Your task to perform on an android device: Check the weather Image 0: 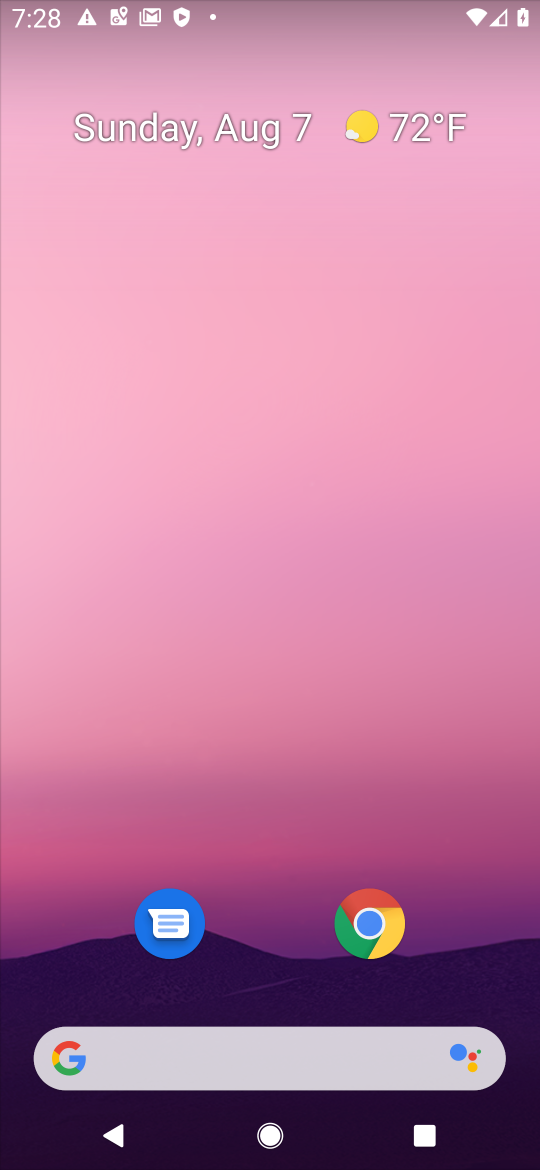
Step 0: drag from (468, 966) to (235, 44)
Your task to perform on an android device: Check the weather Image 1: 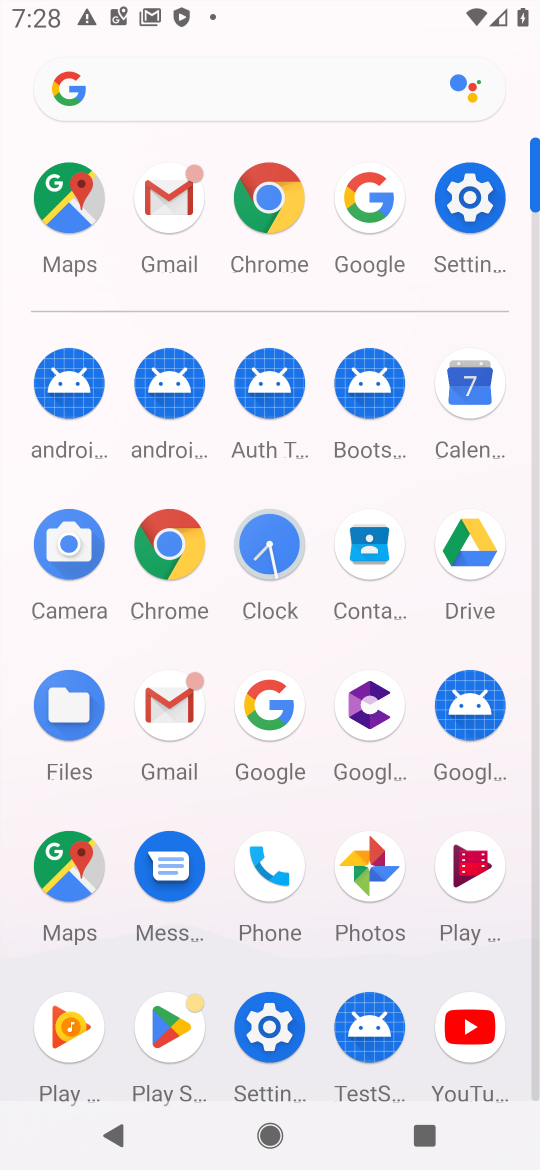
Step 1: click (257, 720)
Your task to perform on an android device: Check the weather Image 2: 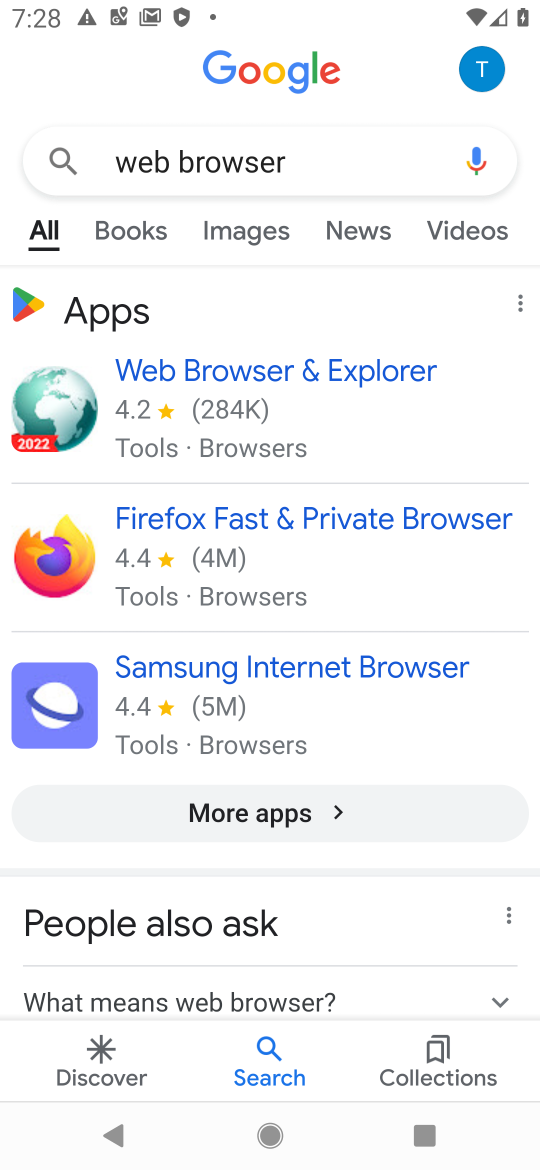
Step 2: press back button
Your task to perform on an android device: Check the weather Image 3: 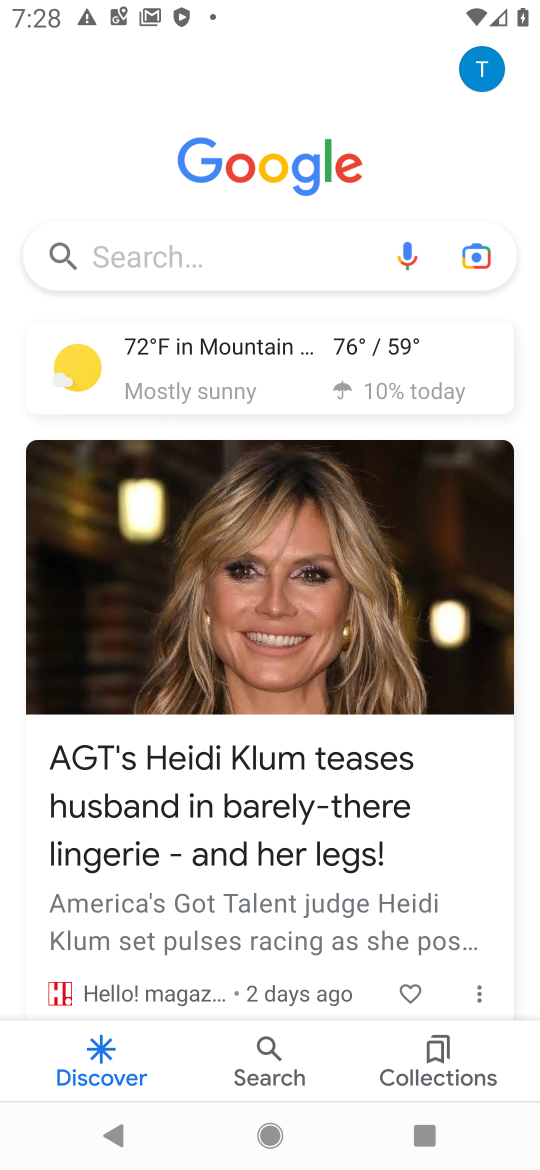
Step 3: click (141, 250)
Your task to perform on an android device: Check the weather Image 4: 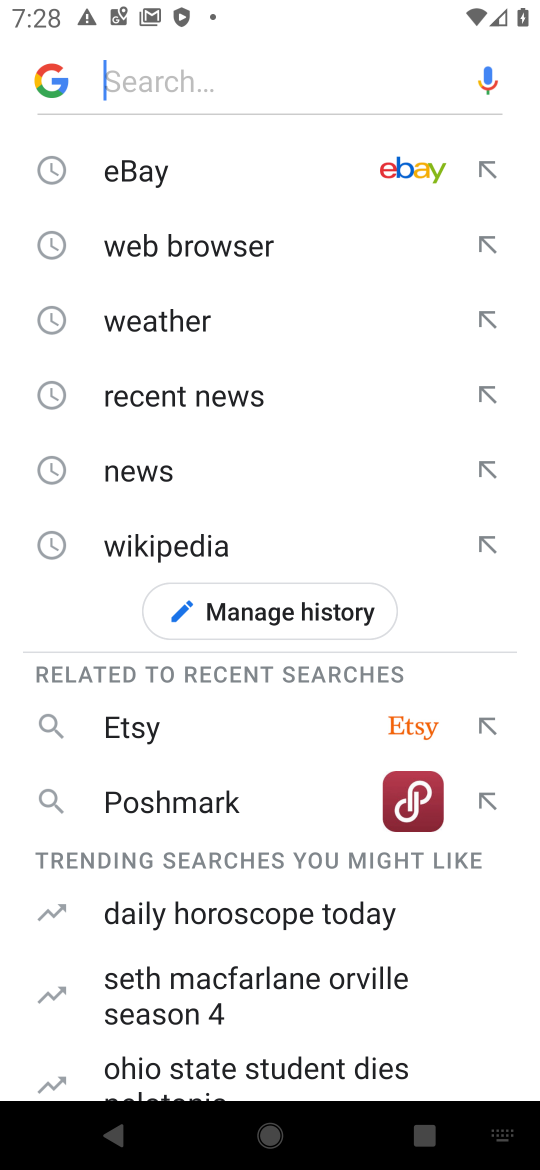
Step 4: click (170, 336)
Your task to perform on an android device: Check the weather Image 5: 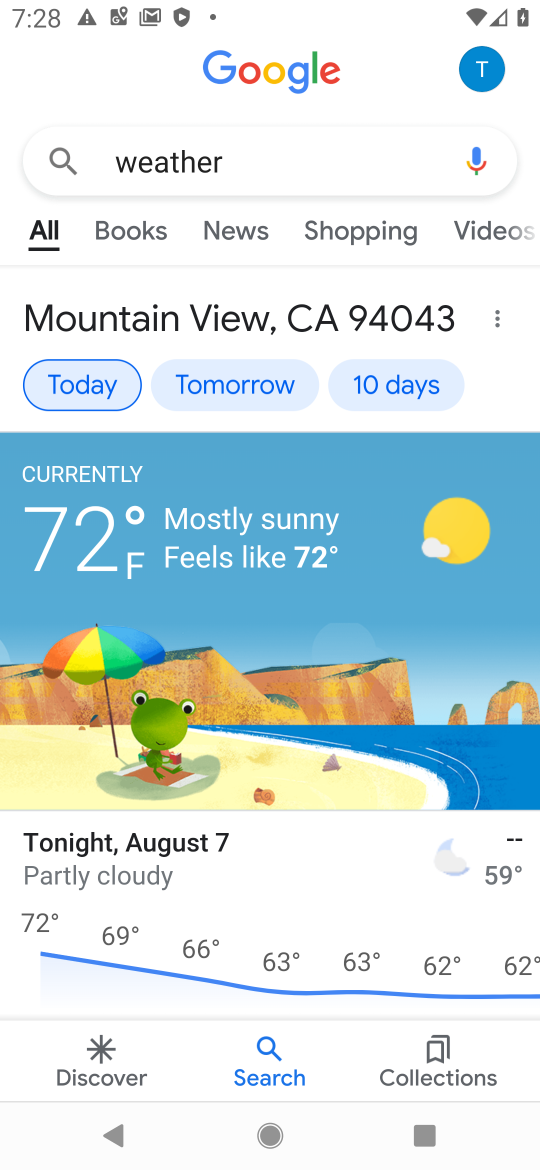
Step 5: task complete